Your task to perform on an android device: toggle notifications settings in the gmail app Image 0: 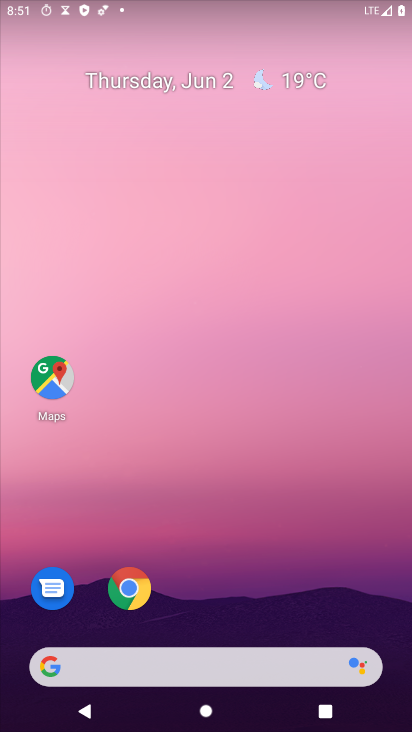
Step 0: drag from (209, 611) to (299, 76)
Your task to perform on an android device: toggle notifications settings in the gmail app Image 1: 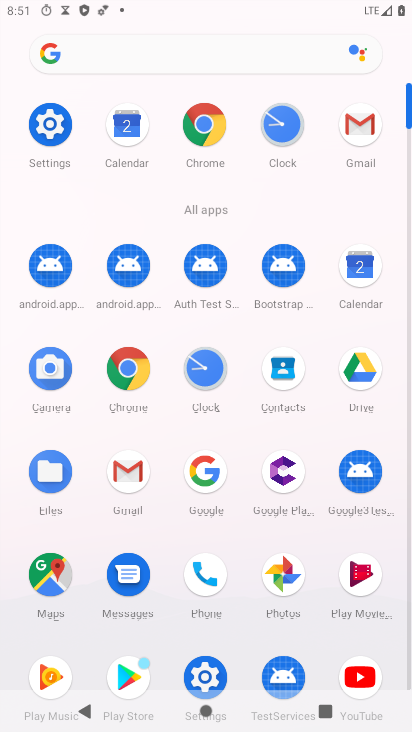
Step 1: click (350, 127)
Your task to perform on an android device: toggle notifications settings in the gmail app Image 2: 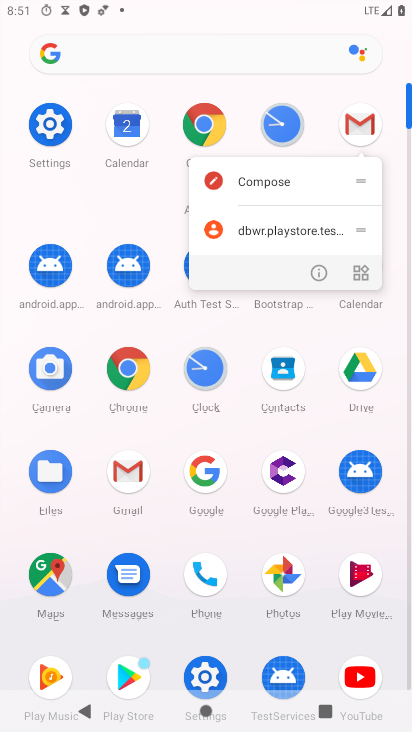
Step 2: click (328, 263)
Your task to perform on an android device: toggle notifications settings in the gmail app Image 3: 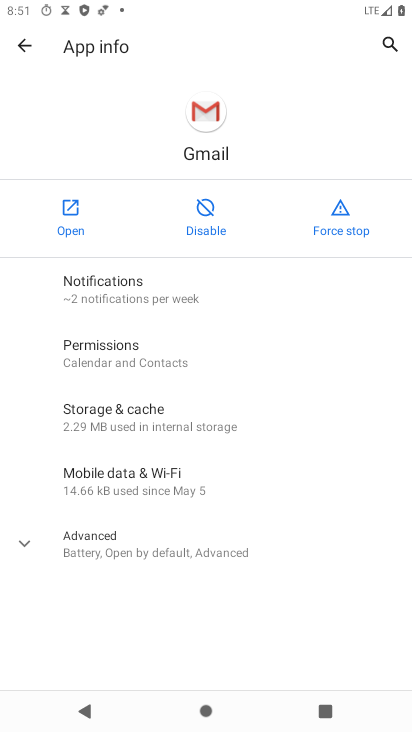
Step 3: click (186, 288)
Your task to perform on an android device: toggle notifications settings in the gmail app Image 4: 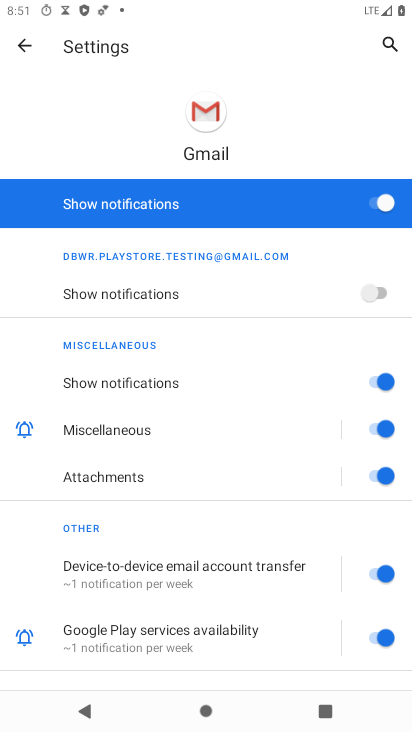
Step 4: click (367, 213)
Your task to perform on an android device: toggle notifications settings in the gmail app Image 5: 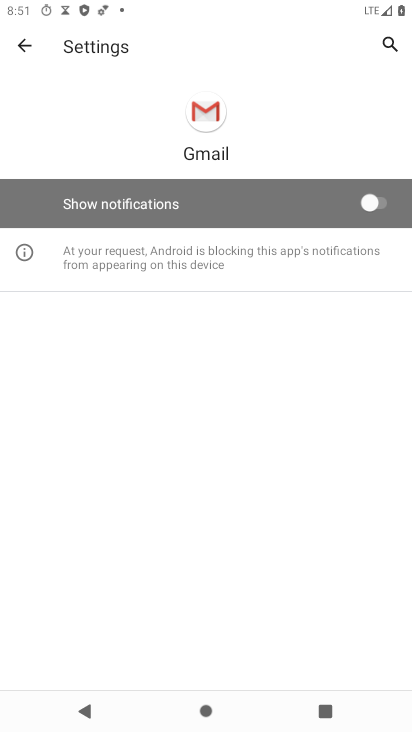
Step 5: task complete